Your task to perform on an android device: Open settings on Google Maps Image 0: 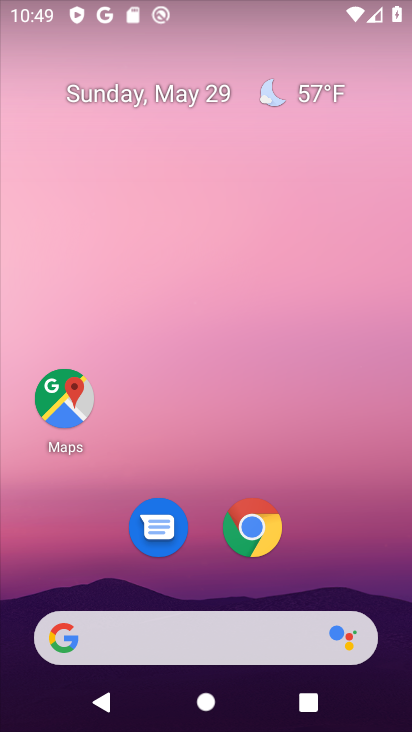
Step 0: click (60, 403)
Your task to perform on an android device: Open settings on Google Maps Image 1: 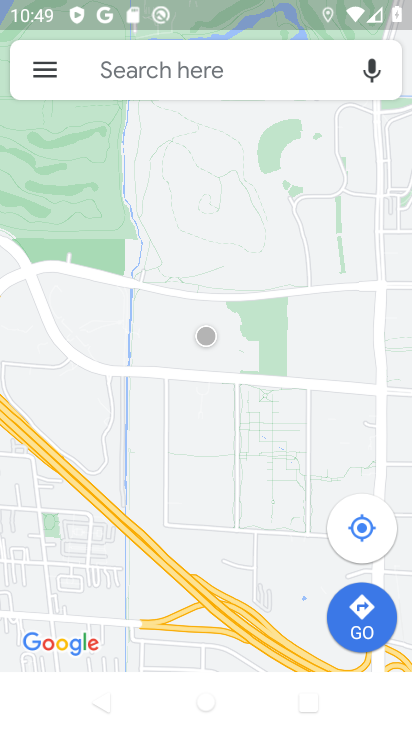
Step 1: click (46, 68)
Your task to perform on an android device: Open settings on Google Maps Image 2: 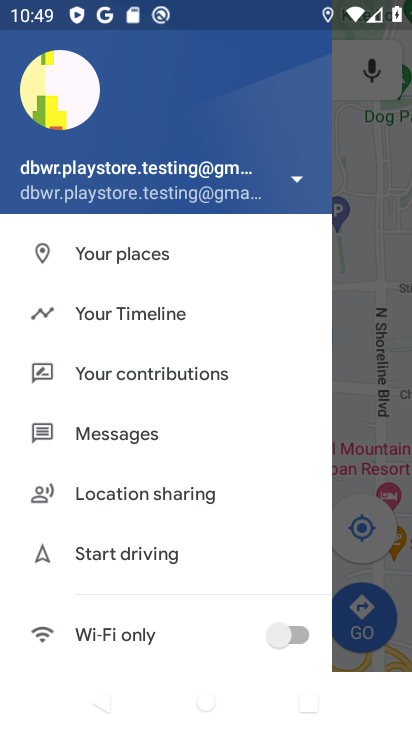
Step 2: drag from (102, 527) to (148, 401)
Your task to perform on an android device: Open settings on Google Maps Image 3: 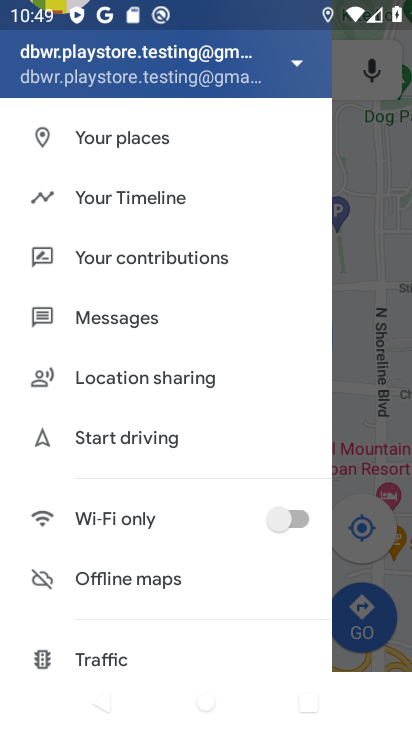
Step 3: drag from (117, 499) to (162, 426)
Your task to perform on an android device: Open settings on Google Maps Image 4: 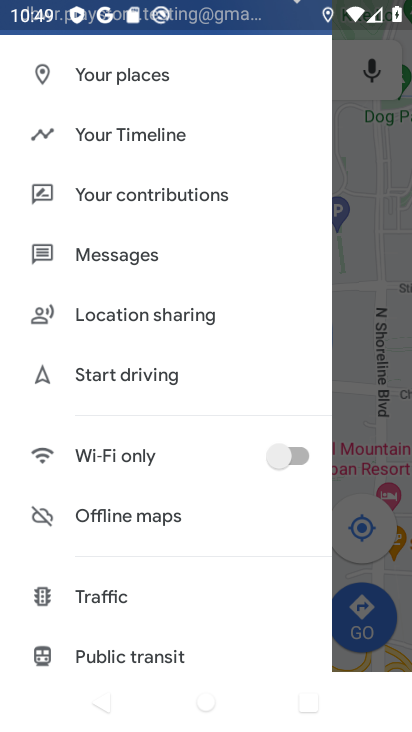
Step 4: drag from (102, 491) to (143, 401)
Your task to perform on an android device: Open settings on Google Maps Image 5: 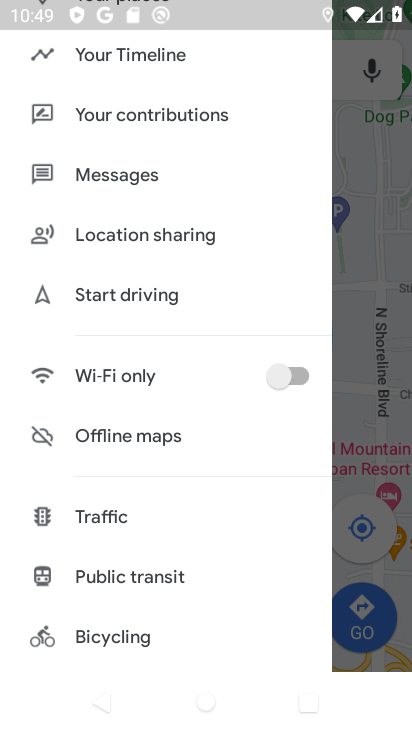
Step 5: drag from (91, 497) to (155, 411)
Your task to perform on an android device: Open settings on Google Maps Image 6: 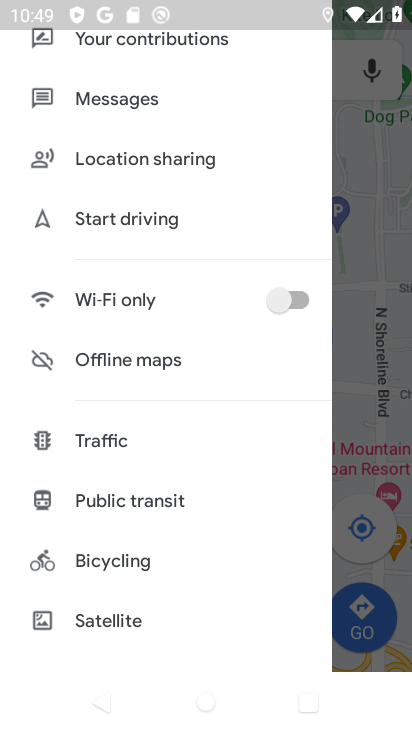
Step 6: drag from (88, 526) to (156, 424)
Your task to perform on an android device: Open settings on Google Maps Image 7: 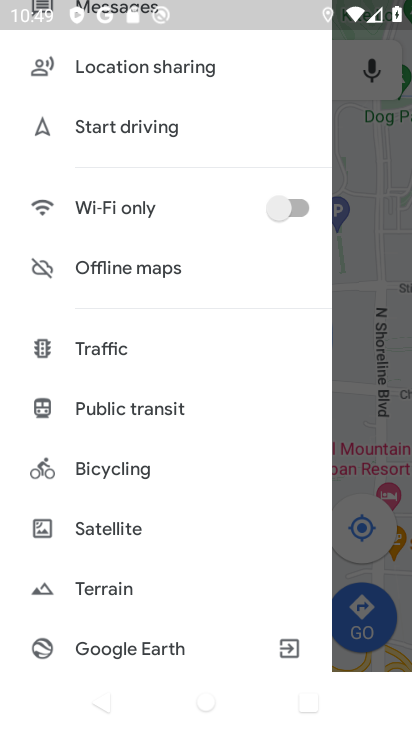
Step 7: drag from (92, 504) to (147, 410)
Your task to perform on an android device: Open settings on Google Maps Image 8: 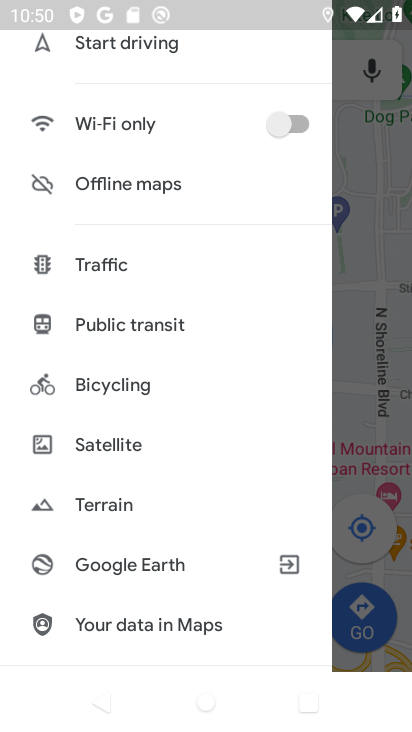
Step 8: drag from (86, 476) to (169, 372)
Your task to perform on an android device: Open settings on Google Maps Image 9: 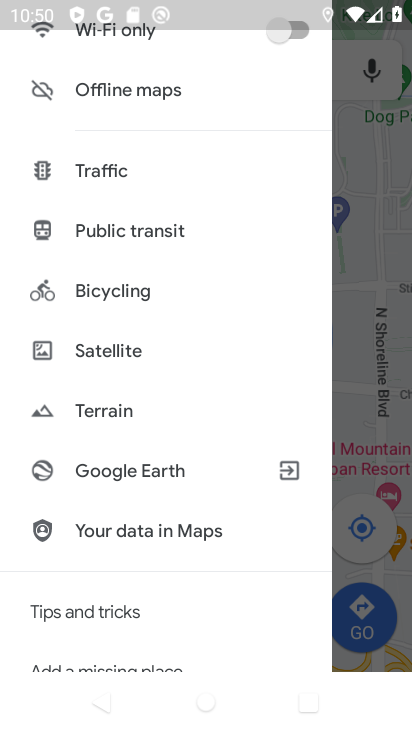
Step 9: drag from (108, 474) to (171, 380)
Your task to perform on an android device: Open settings on Google Maps Image 10: 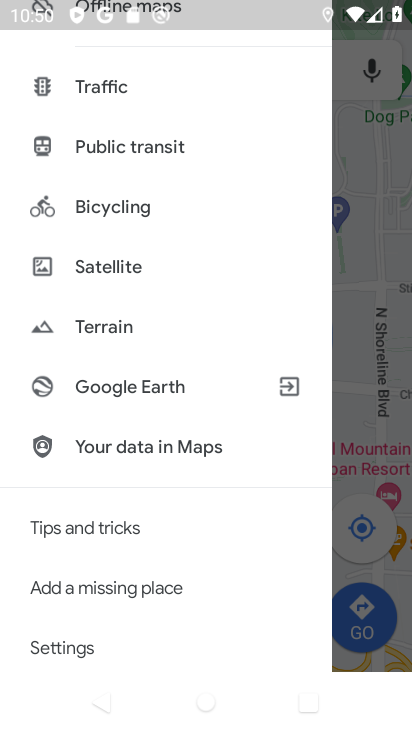
Step 10: click (60, 640)
Your task to perform on an android device: Open settings on Google Maps Image 11: 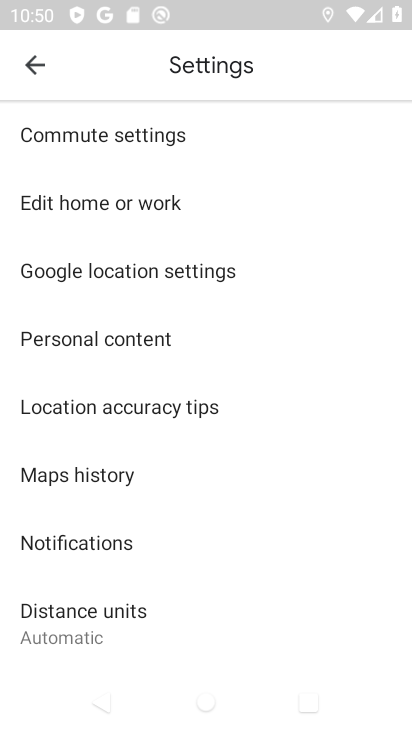
Step 11: task complete